Your task to perform on an android device: turn on translation in the chrome app Image 0: 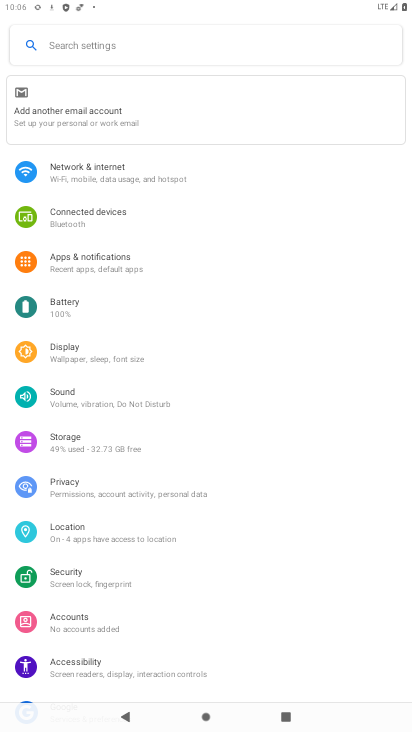
Step 0: press home button
Your task to perform on an android device: turn on translation in the chrome app Image 1: 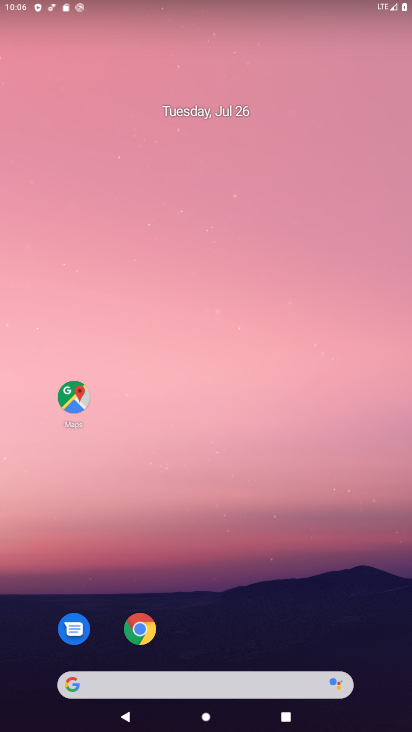
Step 1: click (135, 657)
Your task to perform on an android device: turn on translation in the chrome app Image 2: 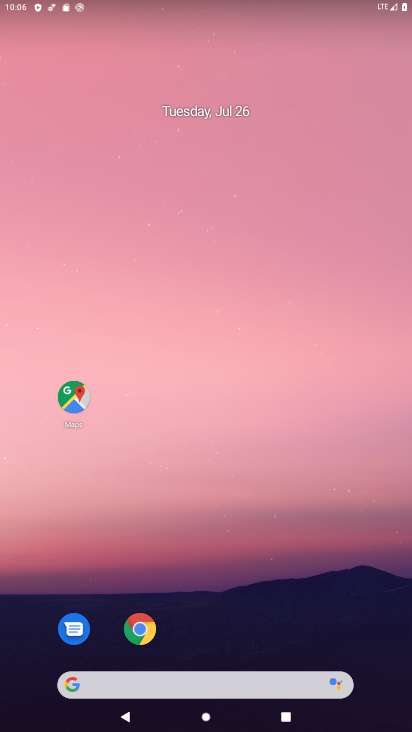
Step 2: click (140, 630)
Your task to perform on an android device: turn on translation in the chrome app Image 3: 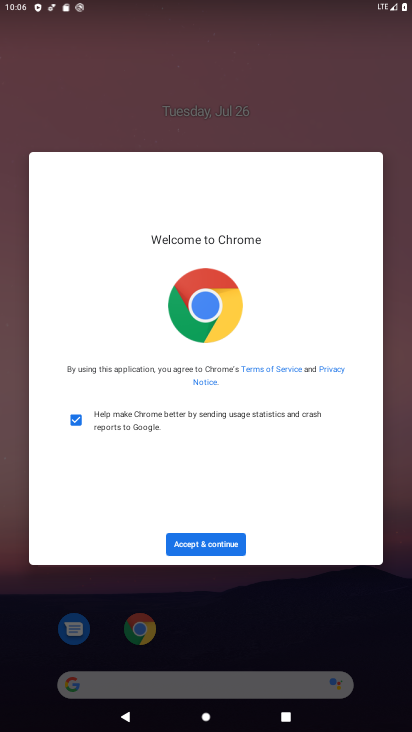
Step 3: click (196, 546)
Your task to perform on an android device: turn on translation in the chrome app Image 4: 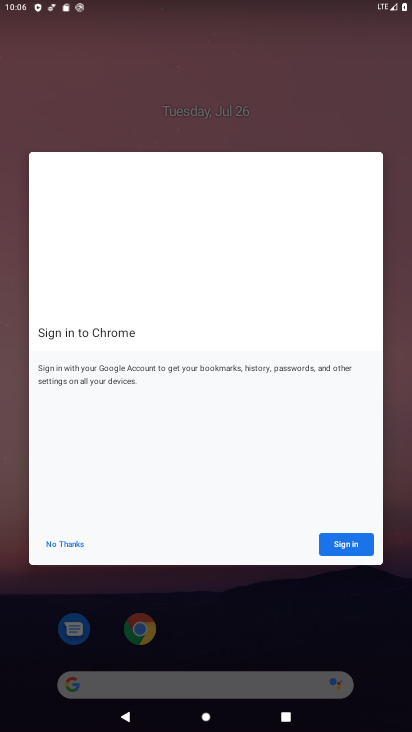
Step 4: click (55, 547)
Your task to perform on an android device: turn on translation in the chrome app Image 5: 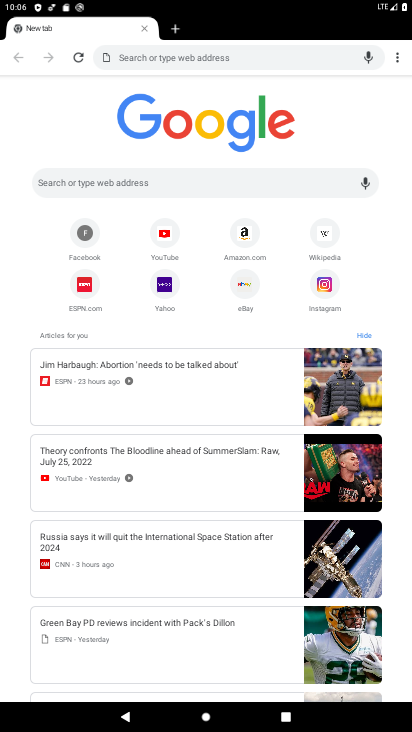
Step 5: click (397, 57)
Your task to perform on an android device: turn on translation in the chrome app Image 6: 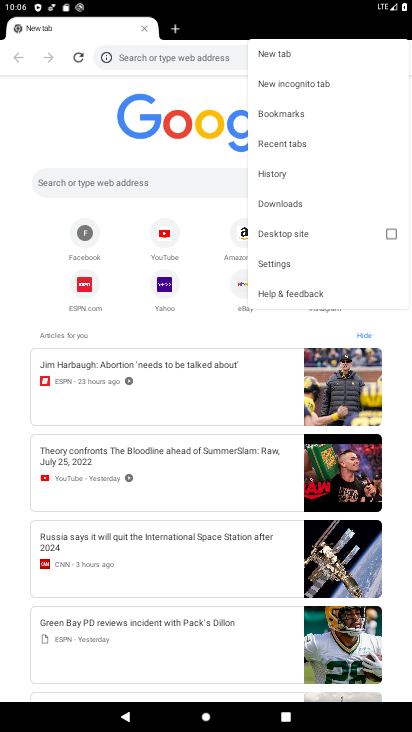
Step 6: click (278, 263)
Your task to perform on an android device: turn on translation in the chrome app Image 7: 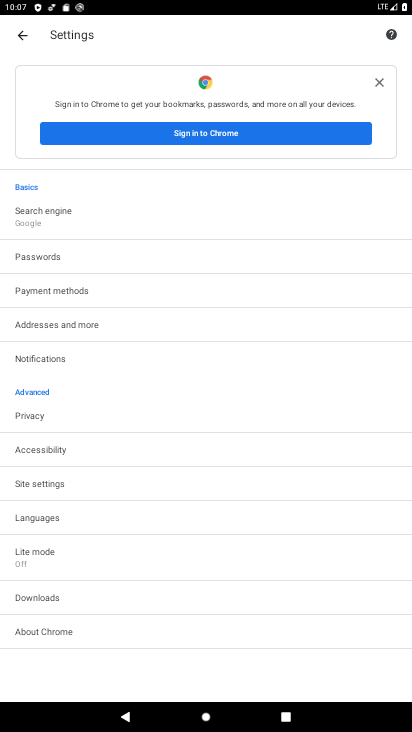
Step 7: click (46, 516)
Your task to perform on an android device: turn on translation in the chrome app Image 8: 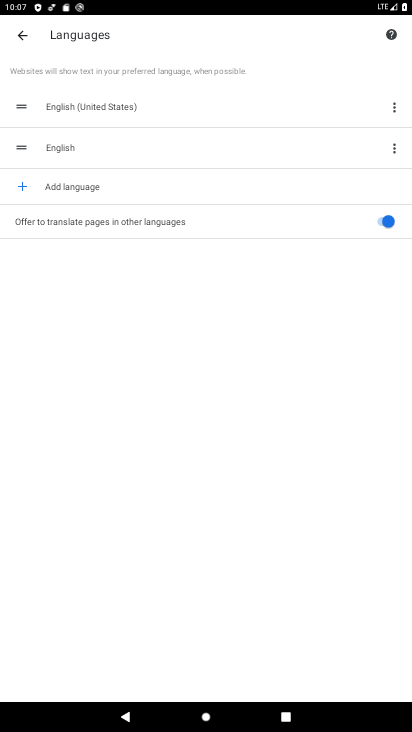
Step 8: task complete